Your task to perform on an android device: Turn on the flashlight Image 0: 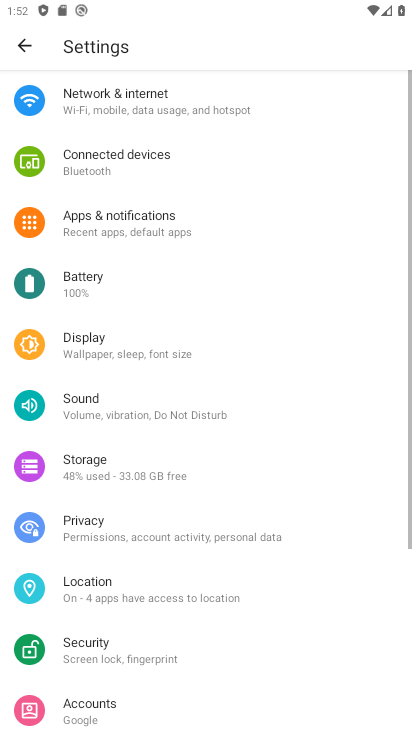
Step 0: click (91, 340)
Your task to perform on an android device: Turn on the flashlight Image 1: 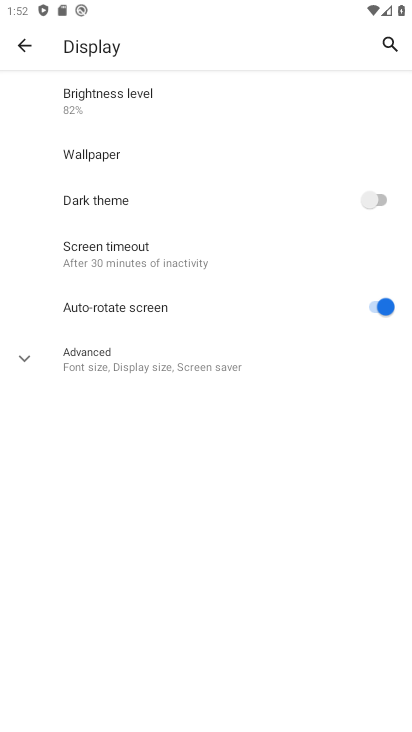
Step 1: task complete